Your task to perform on an android device: Search for pizza restaurants on Maps Image 0: 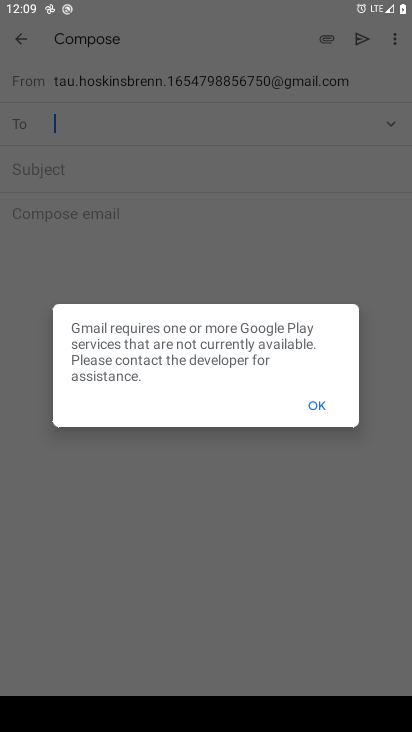
Step 0: press home button
Your task to perform on an android device: Search for pizza restaurants on Maps Image 1: 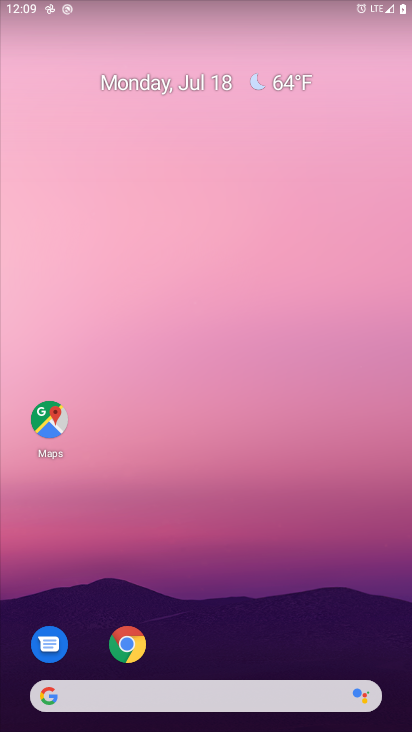
Step 1: click (52, 413)
Your task to perform on an android device: Search for pizza restaurants on Maps Image 2: 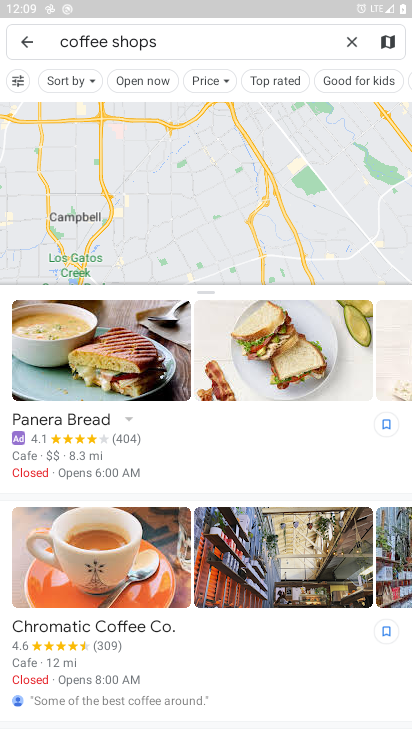
Step 2: click (350, 37)
Your task to perform on an android device: Search for pizza restaurants on Maps Image 3: 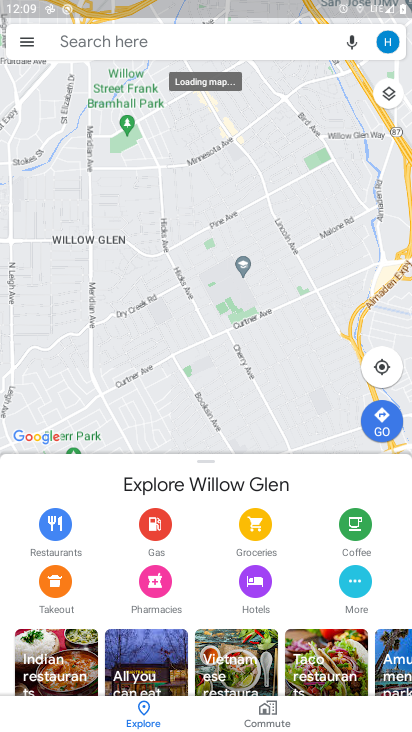
Step 3: type "pizza restaurants"
Your task to perform on an android device: Search for pizza restaurants on Maps Image 4: 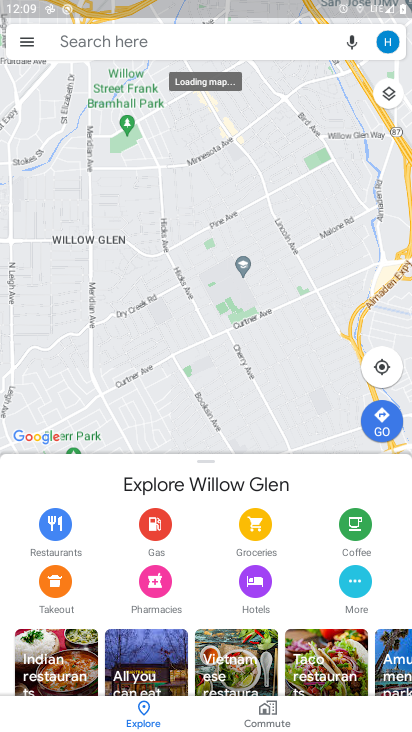
Step 4: click (94, 38)
Your task to perform on an android device: Search for pizza restaurants on Maps Image 5: 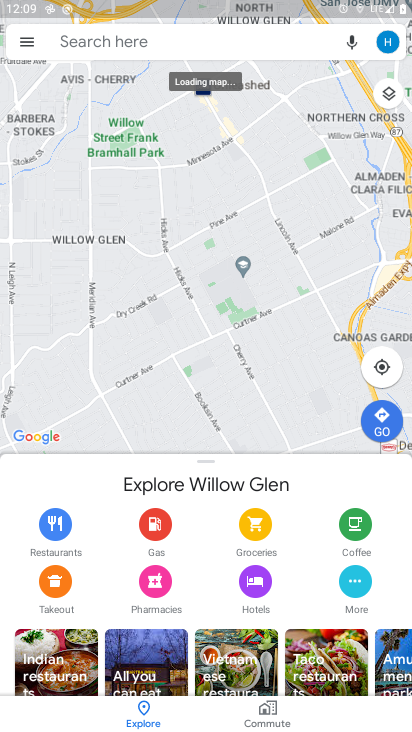
Step 5: click (140, 43)
Your task to perform on an android device: Search for pizza restaurants on Maps Image 6: 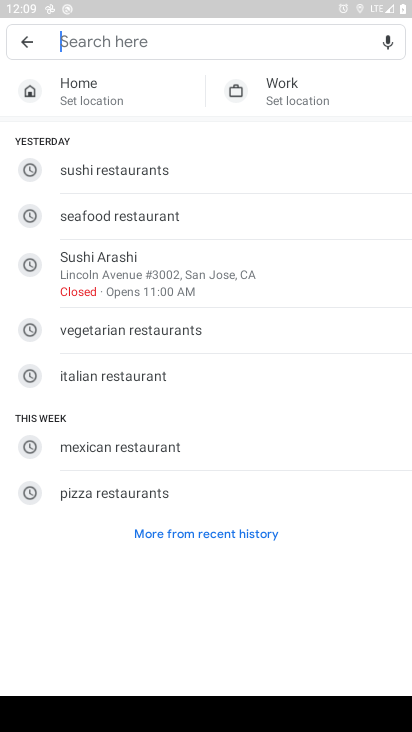
Step 6: click (140, 43)
Your task to perform on an android device: Search for pizza restaurants on Maps Image 7: 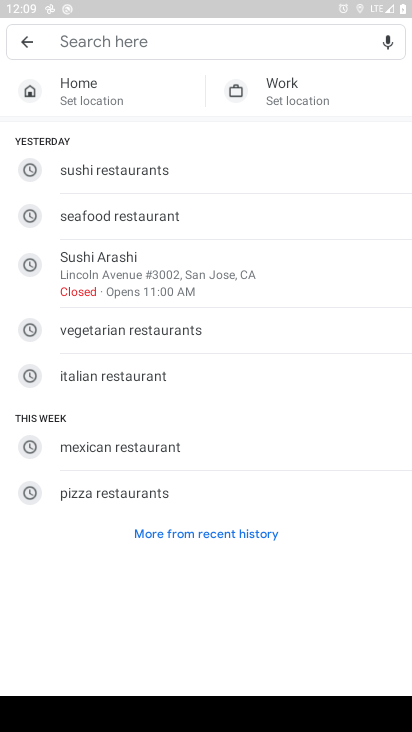
Step 7: click (66, 491)
Your task to perform on an android device: Search for pizza restaurants on Maps Image 8: 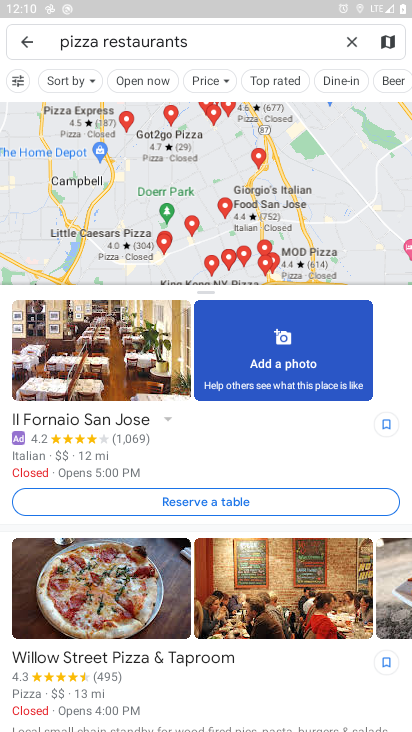
Step 8: task complete